Your task to perform on an android device: Turn off the flashlight Image 0: 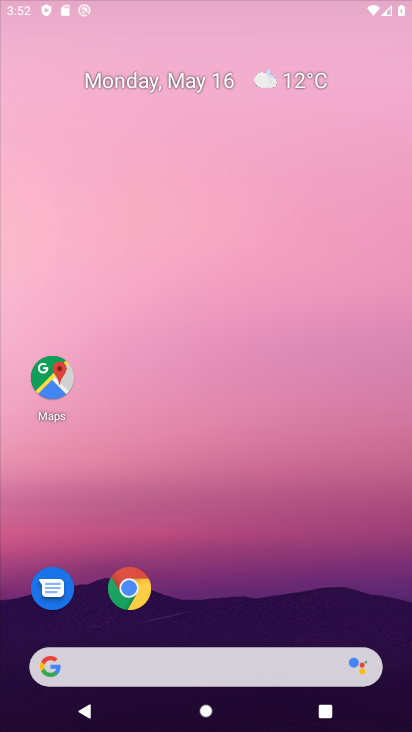
Step 0: drag from (232, 666) to (311, 165)
Your task to perform on an android device: Turn off the flashlight Image 1: 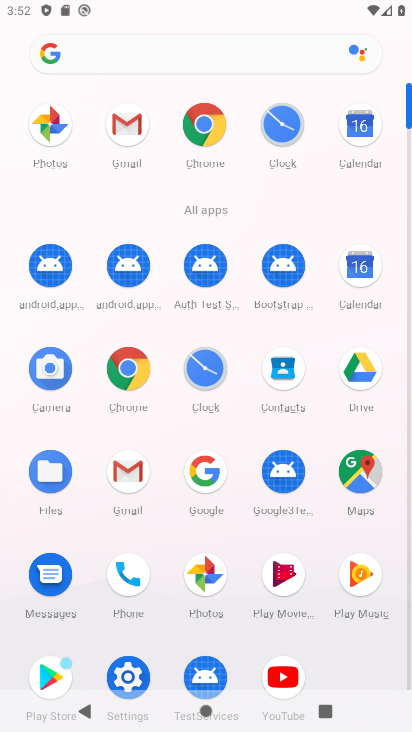
Step 1: task complete